Your task to perform on an android device: manage bookmarks in the chrome app Image 0: 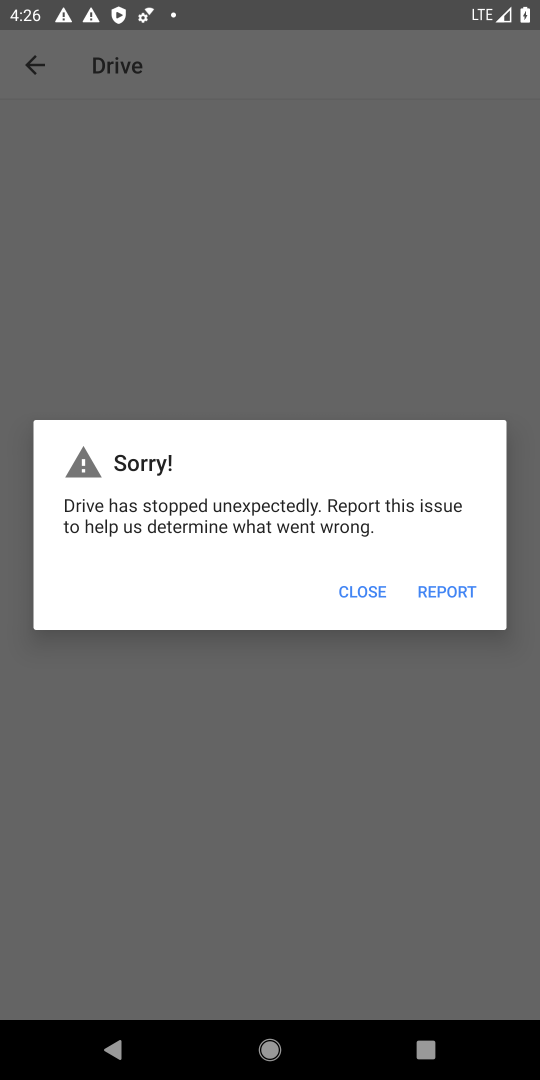
Step 0: press home button
Your task to perform on an android device: manage bookmarks in the chrome app Image 1: 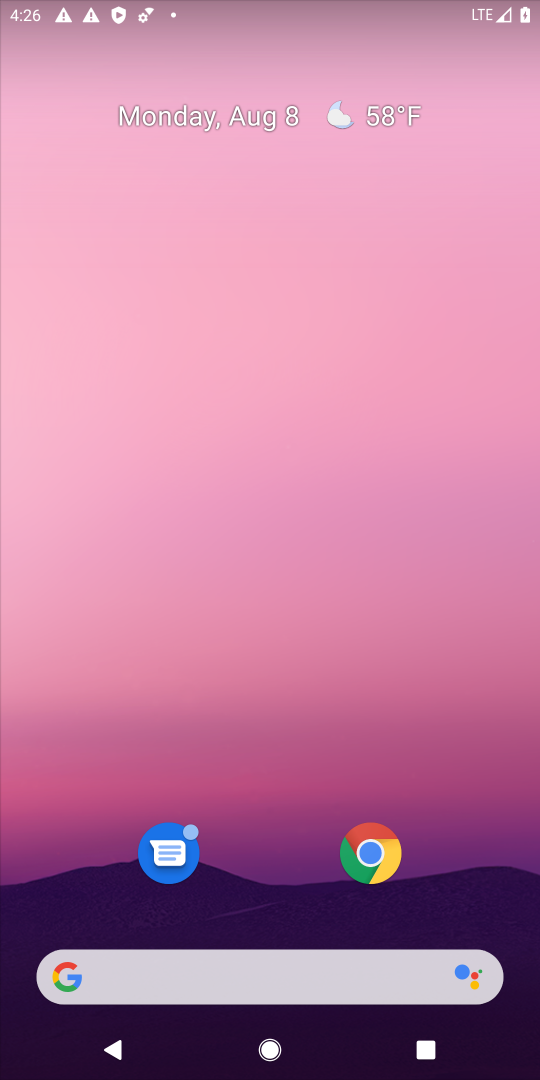
Step 1: click (367, 828)
Your task to perform on an android device: manage bookmarks in the chrome app Image 2: 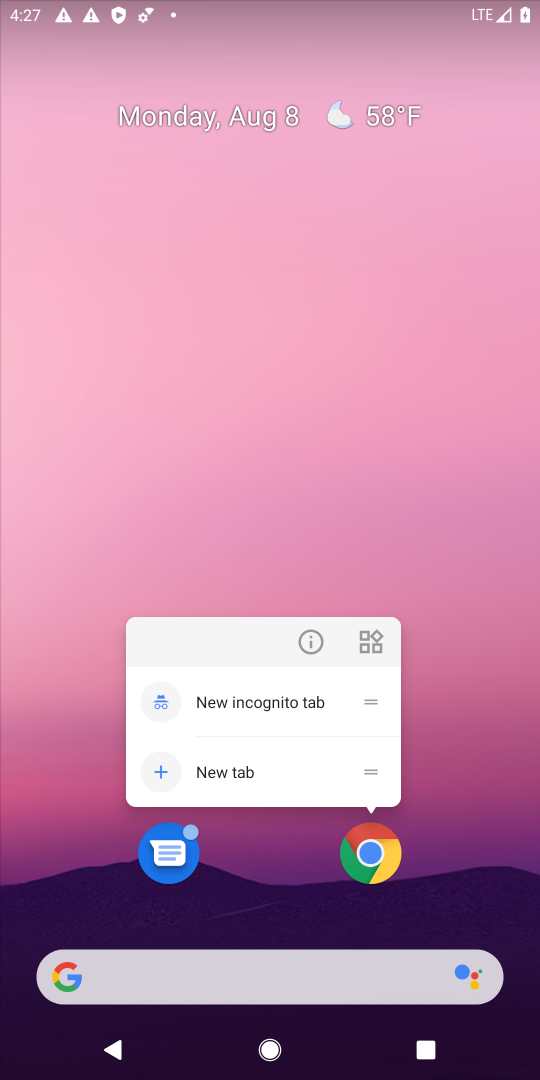
Step 2: click (393, 861)
Your task to perform on an android device: manage bookmarks in the chrome app Image 3: 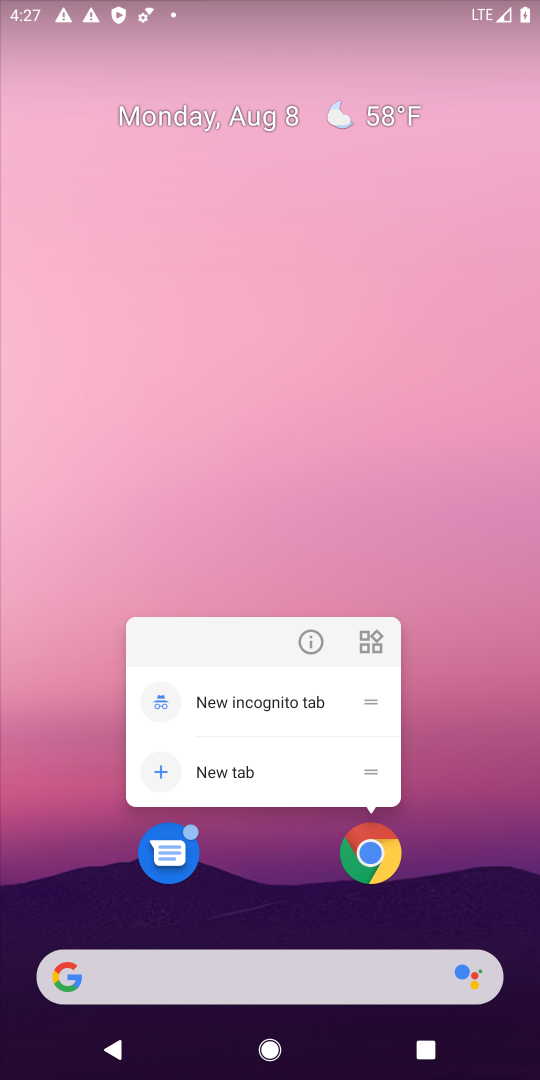
Step 3: click (393, 861)
Your task to perform on an android device: manage bookmarks in the chrome app Image 4: 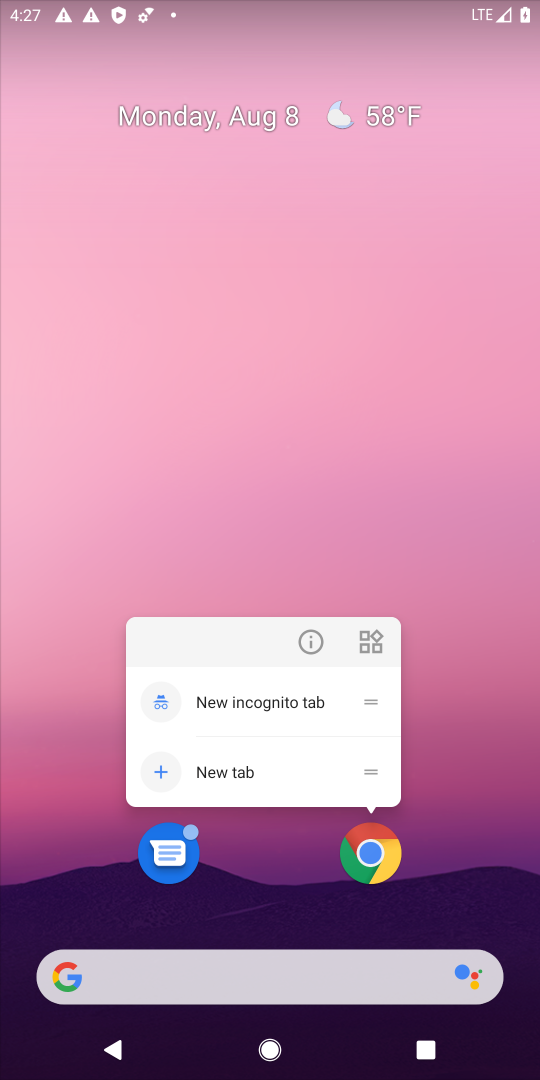
Step 4: click (378, 853)
Your task to perform on an android device: manage bookmarks in the chrome app Image 5: 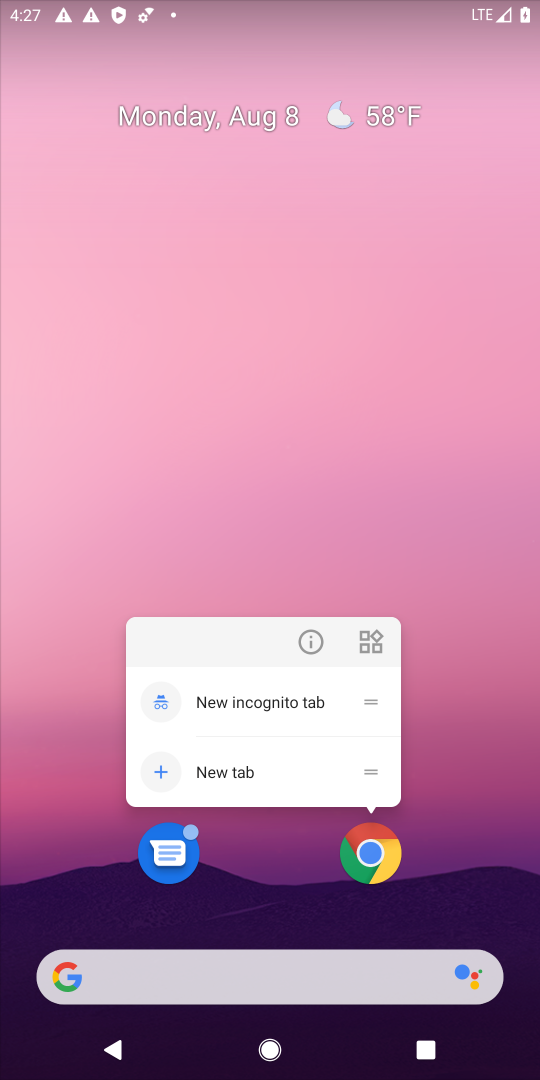
Step 5: drag from (398, 877) to (337, 237)
Your task to perform on an android device: manage bookmarks in the chrome app Image 6: 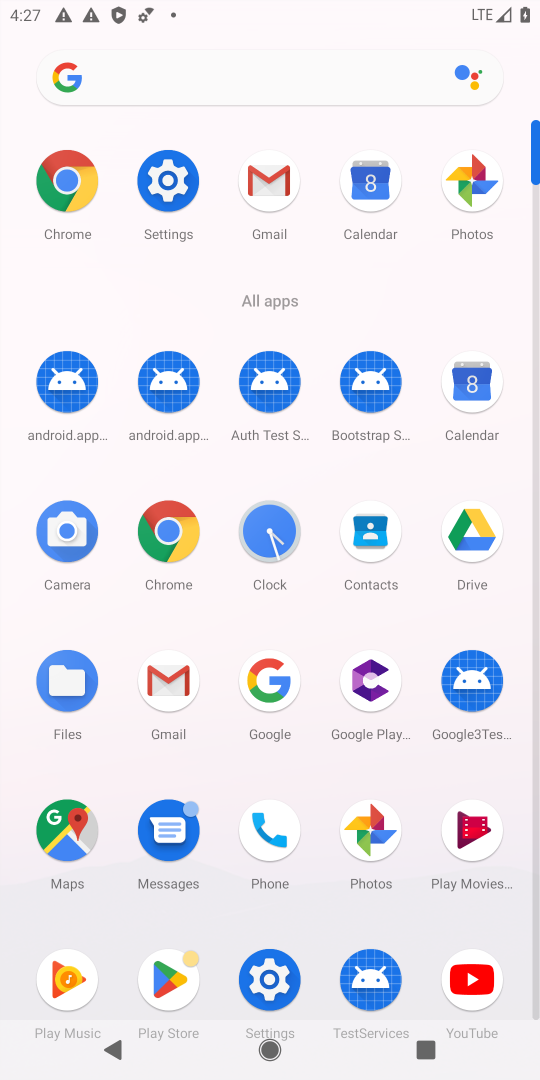
Step 6: click (66, 168)
Your task to perform on an android device: manage bookmarks in the chrome app Image 7: 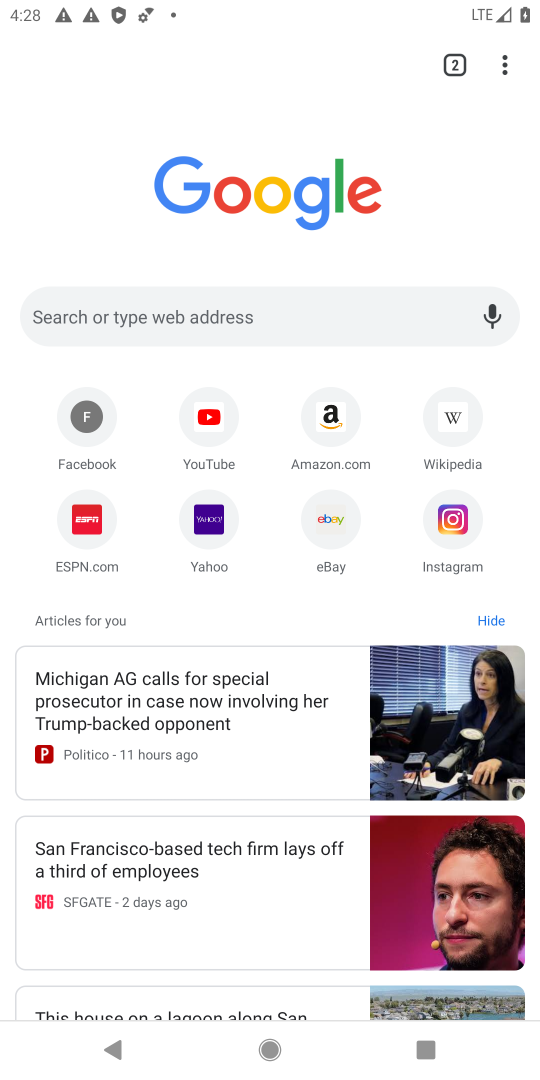
Step 7: task complete